Your task to perform on an android device: Play the last video I watched on Youtube Image 0: 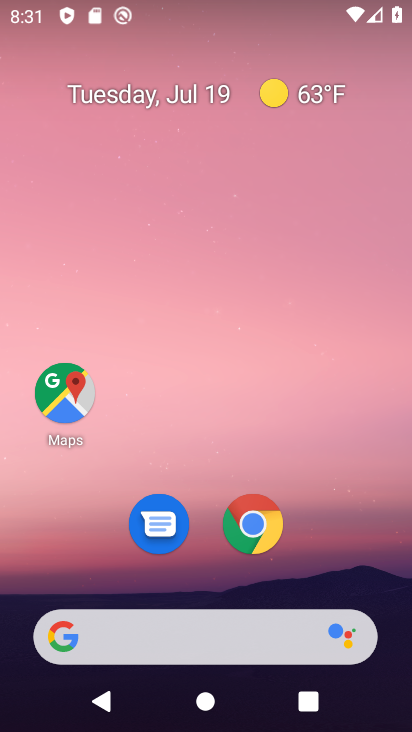
Step 0: press home button
Your task to perform on an android device: Play the last video I watched on Youtube Image 1: 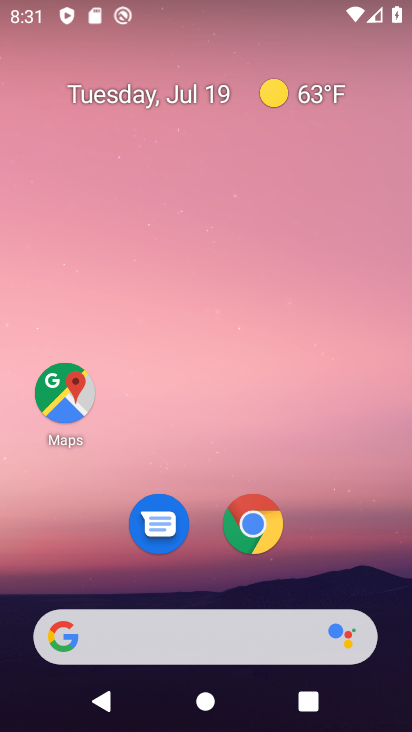
Step 1: drag from (213, 627) to (315, 142)
Your task to perform on an android device: Play the last video I watched on Youtube Image 2: 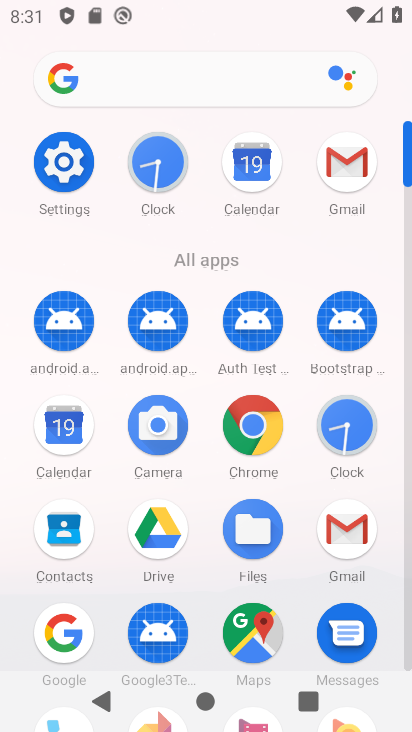
Step 2: drag from (253, 457) to (369, 177)
Your task to perform on an android device: Play the last video I watched on Youtube Image 3: 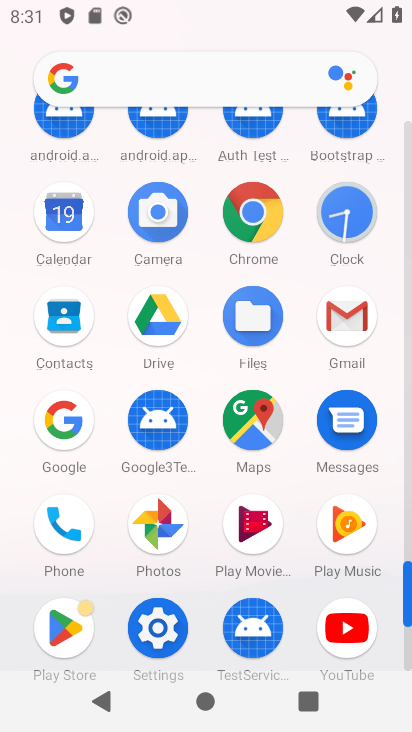
Step 3: click (347, 625)
Your task to perform on an android device: Play the last video I watched on Youtube Image 4: 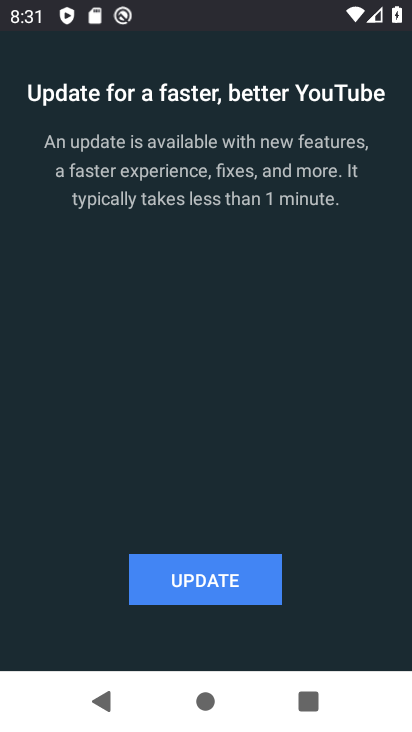
Step 4: click (209, 566)
Your task to perform on an android device: Play the last video I watched on Youtube Image 5: 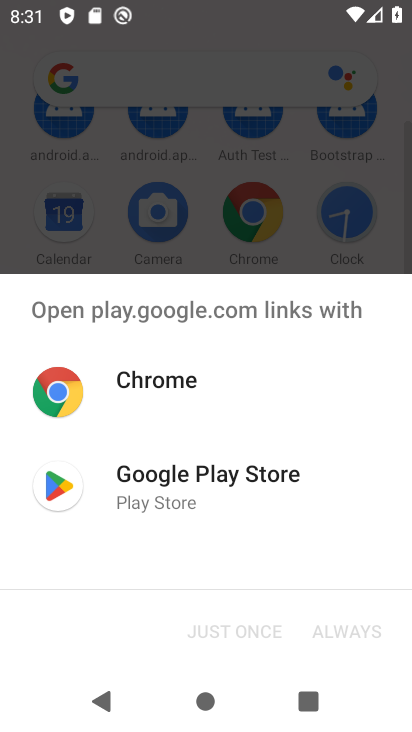
Step 5: click (237, 477)
Your task to perform on an android device: Play the last video I watched on Youtube Image 6: 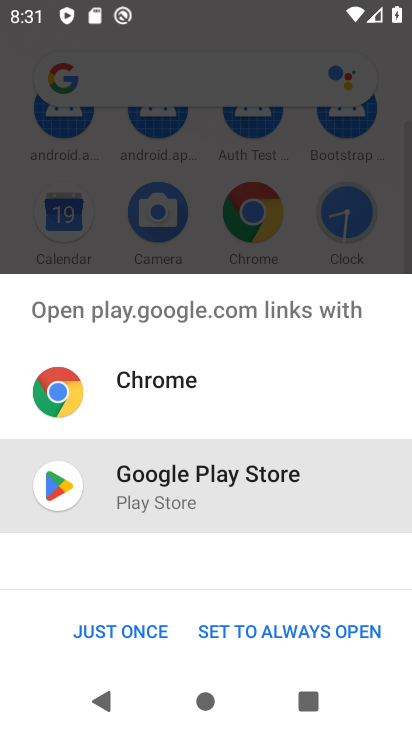
Step 6: click (138, 627)
Your task to perform on an android device: Play the last video I watched on Youtube Image 7: 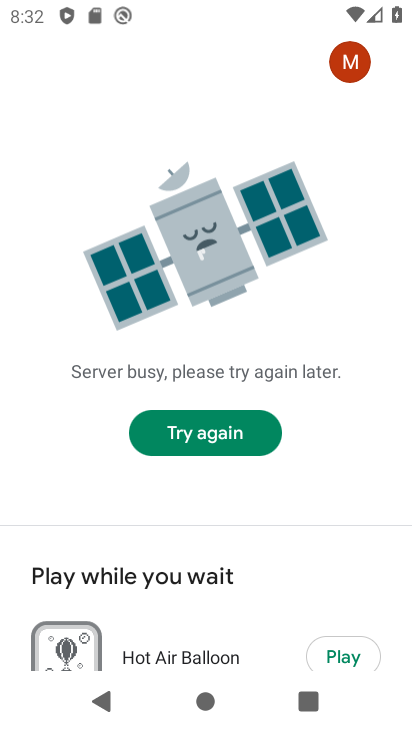
Step 7: click (213, 427)
Your task to perform on an android device: Play the last video I watched on Youtube Image 8: 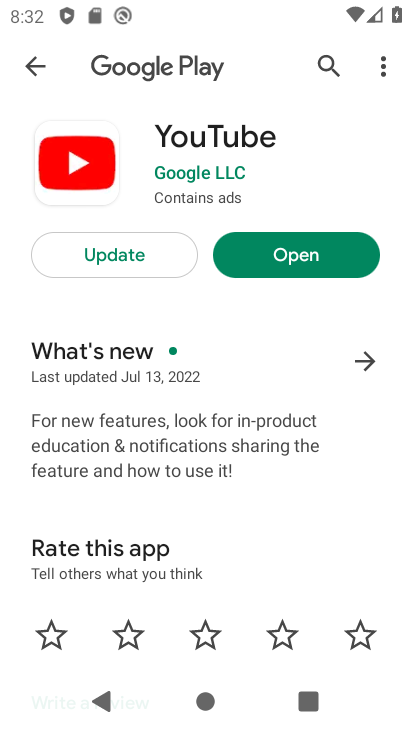
Step 8: click (132, 253)
Your task to perform on an android device: Play the last video I watched on Youtube Image 9: 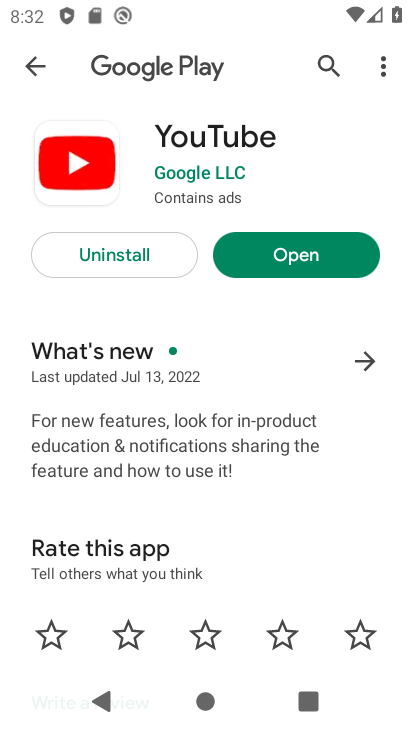
Step 9: click (296, 259)
Your task to perform on an android device: Play the last video I watched on Youtube Image 10: 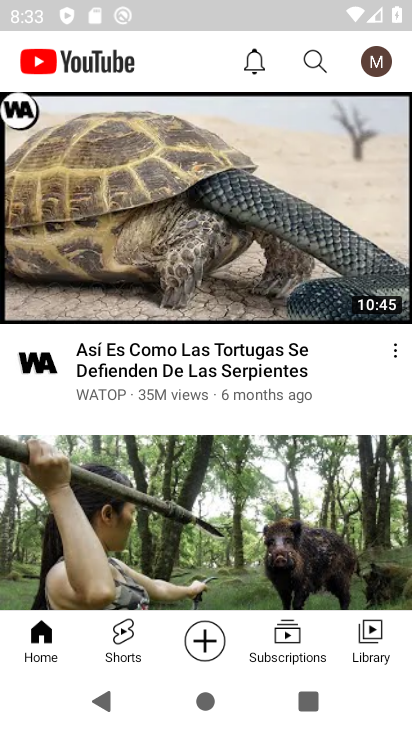
Step 10: click (371, 642)
Your task to perform on an android device: Play the last video I watched on Youtube Image 11: 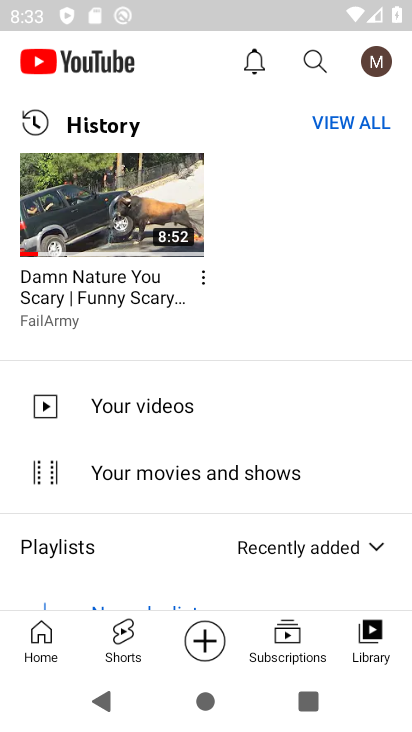
Step 11: click (104, 216)
Your task to perform on an android device: Play the last video I watched on Youtube Image 12: 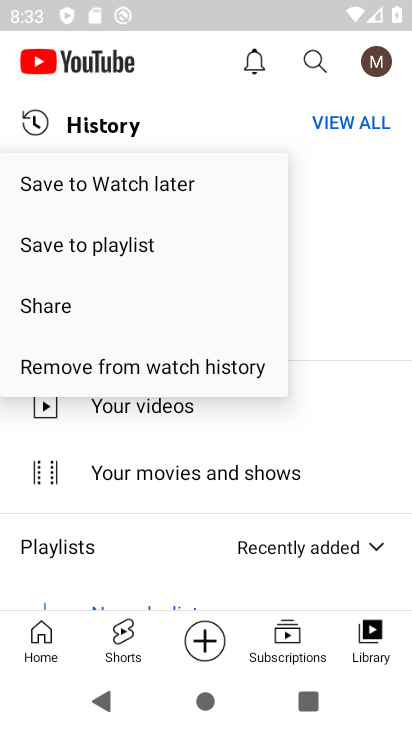
Step 12: click (357, 332)
Your task to perform on an android device: Play the last video I watched on Youtube Image 13: 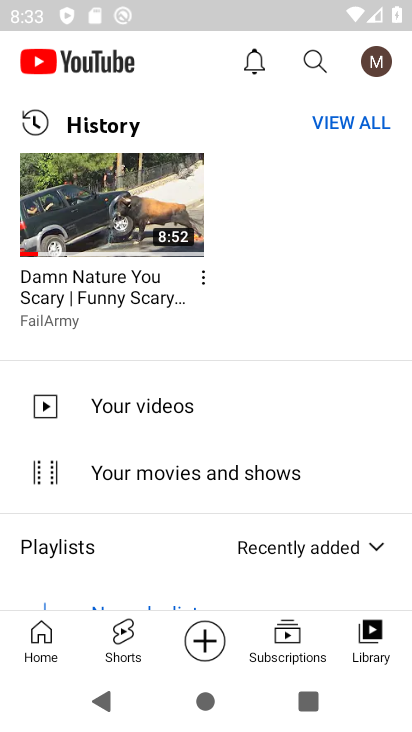
Step 13: click (109, 199)
Your task to perform on an android device: Play the last video I watched on Youtube Image 14: 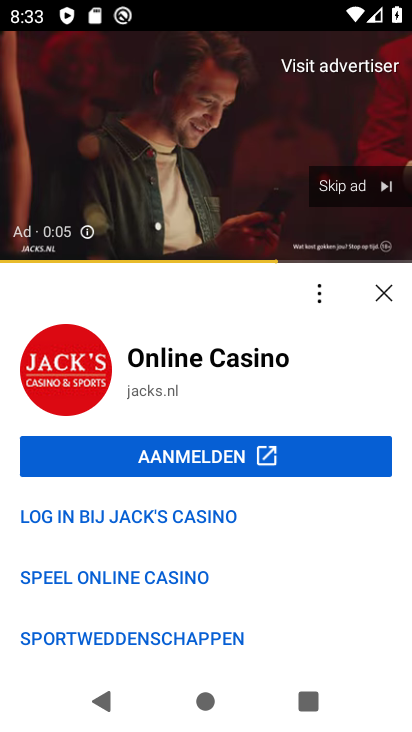
Step 14: click (328, 184)
Your task to perform on an android device: Play the last video I watched on Youtube Image 15: 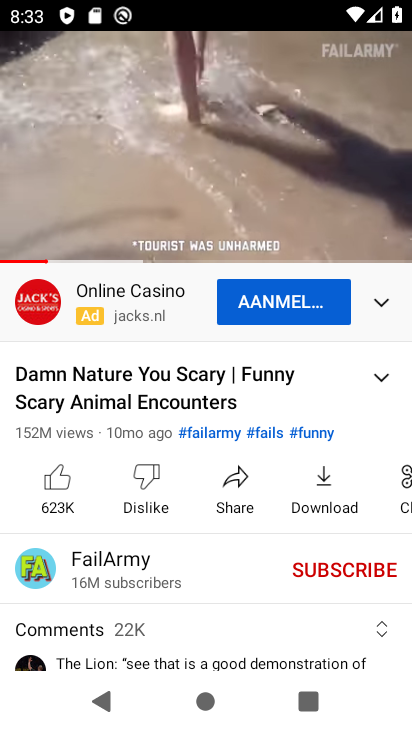
Step 15: click (213, 151)
Your task to perform on an android device: Play the last video I watched on Youtube Image 16: 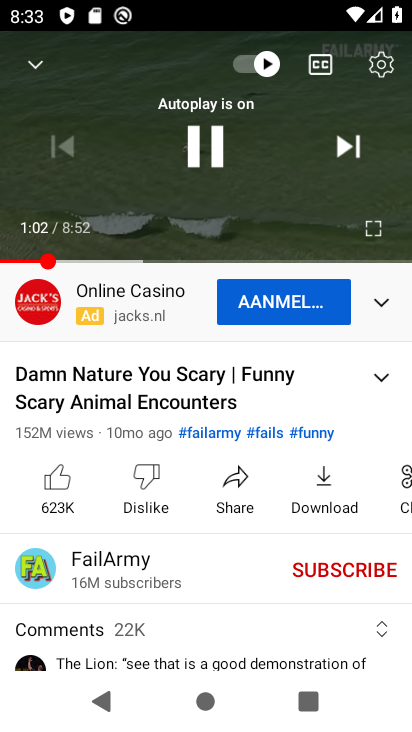
Step 16: click (213, 155)
Your task to perform on an android device: Play the last video I watched on Youtube Image 17: 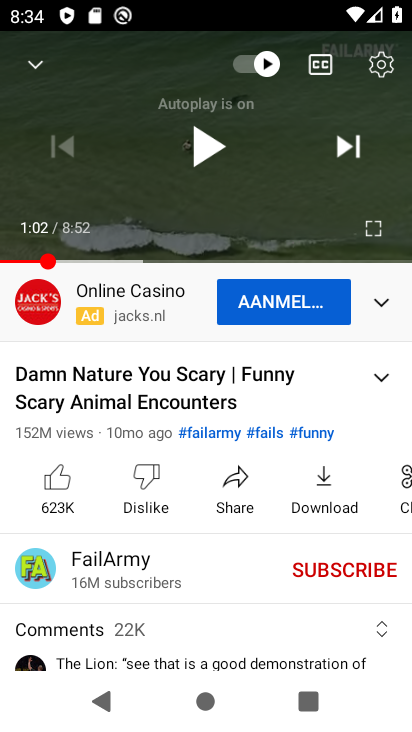
Step 17: task complete